Your task to perform on an android device: Turn on the flashlight Image 0: 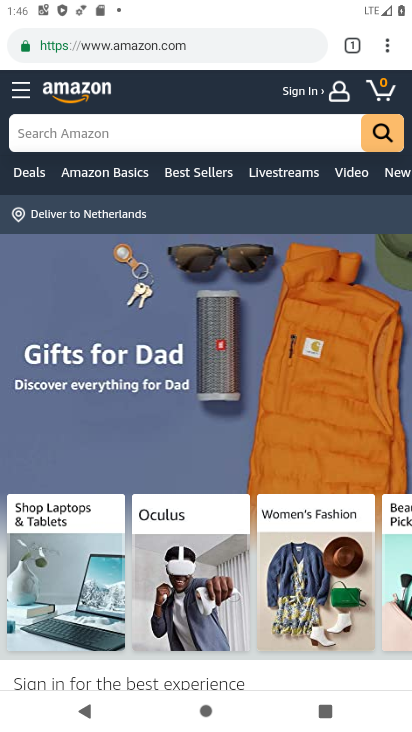
Step 0: press home button
Your task to perform on an android device: Turn on the flashlight Image 1: 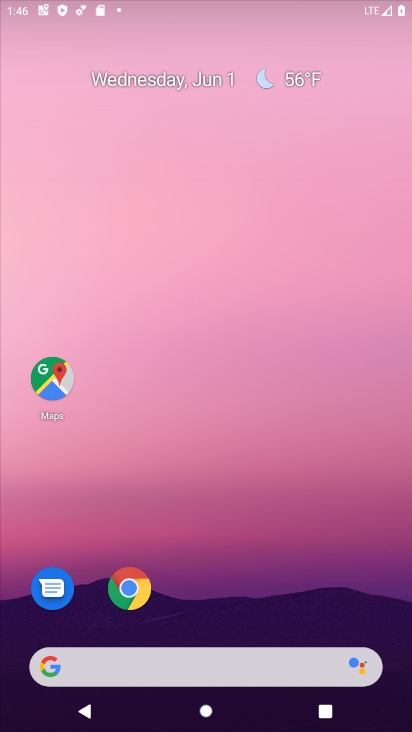
Step 1: task complete